Your task to perform on an android device: toggle notification dots Image 0: 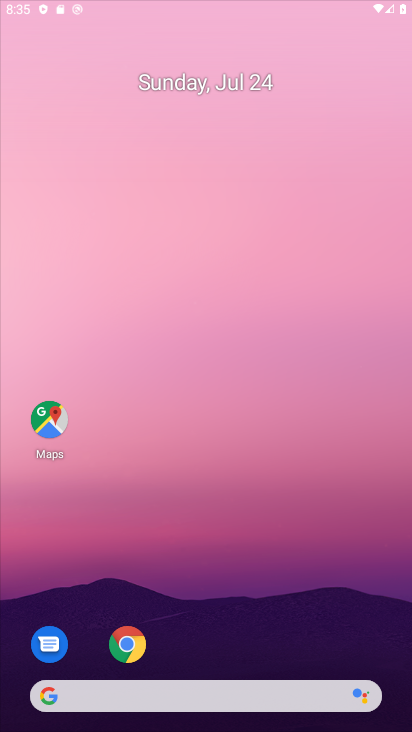
Step 0: click (167, 204)
Your task to perform on an android device: toggle notification dots Image 1: 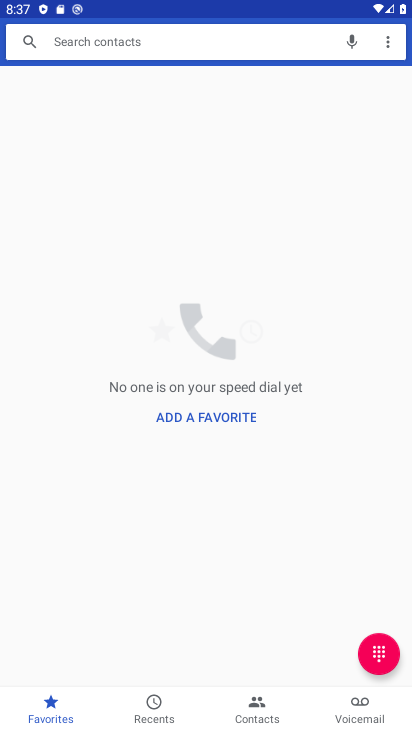
Step 1: press home button
Your task to perform on an android device: toggle notification dots Image 2: 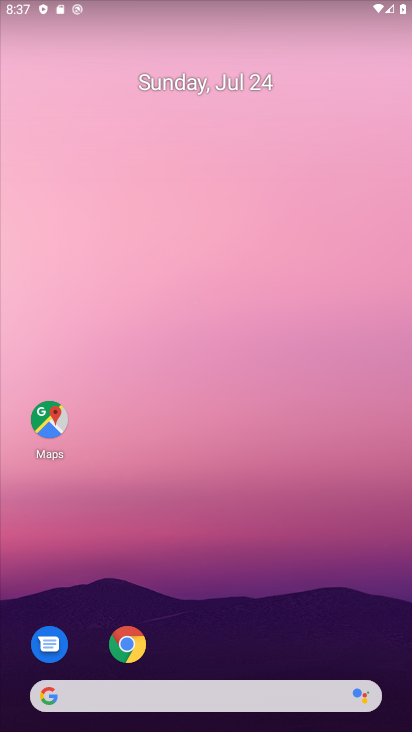
Step 2: drag from (156, 677) to (198, 236)
Your task to perform on an android device: toggle notification dots Image 3: 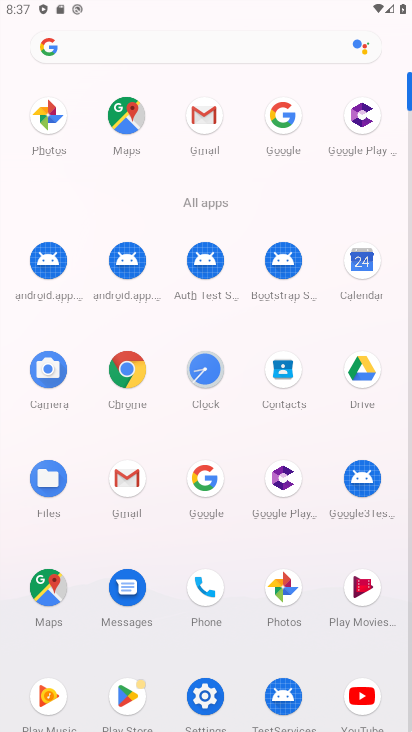
Step 3: click (203, 706)
Your task to perform on an android device: toggle notification dots Image 4: 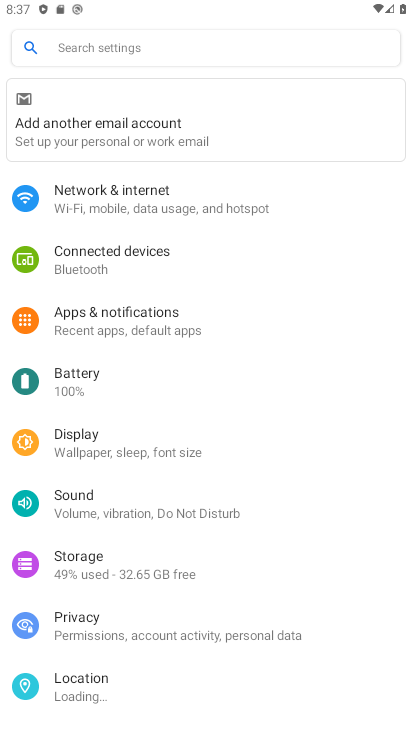
Step 4: click (125, 325)
Your task to perform on an android device: toggle notification dots Image 5: 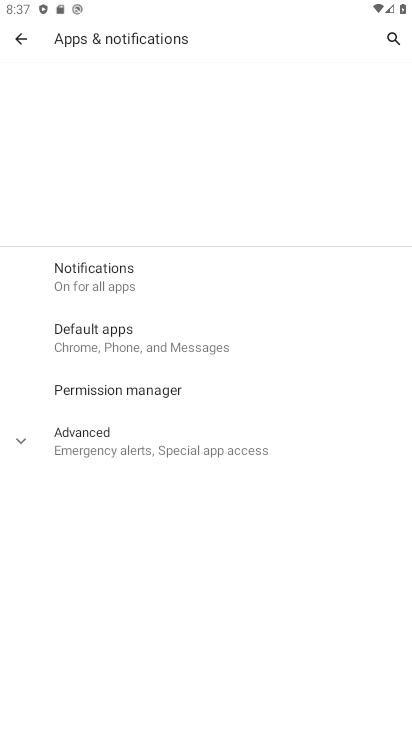
Step 5: click (104, 270)
Your task to perform on an android device: toggle notification dots Image 6: 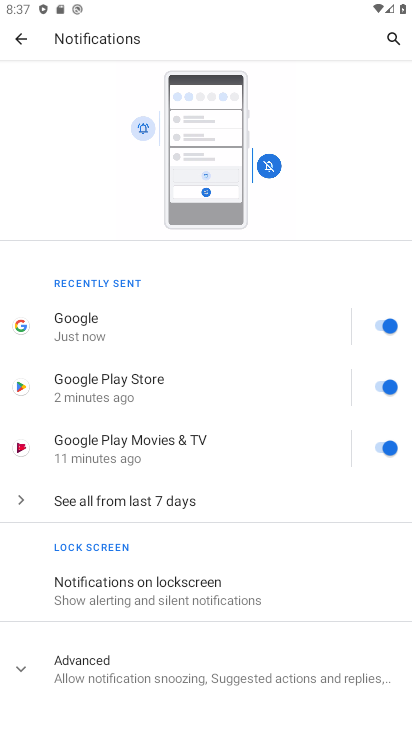
Step 6: drag from (167, 700) to (175, 395)
Your task to perform on an android device: toggle notification dots Image 7: 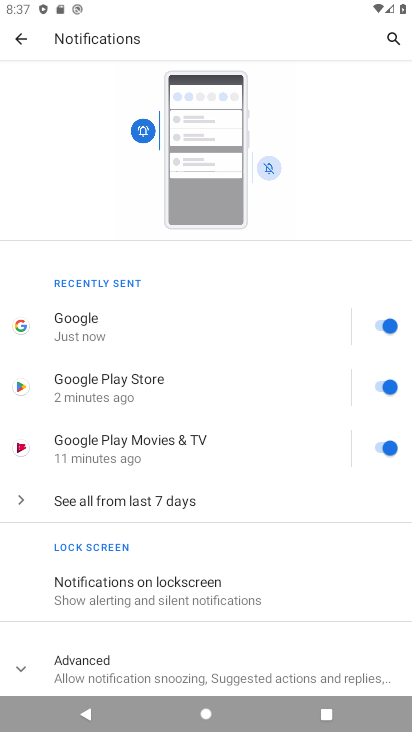
Step 7: click (116, 673)
Your task to perform on an android device: toggle notification dots Image 8: 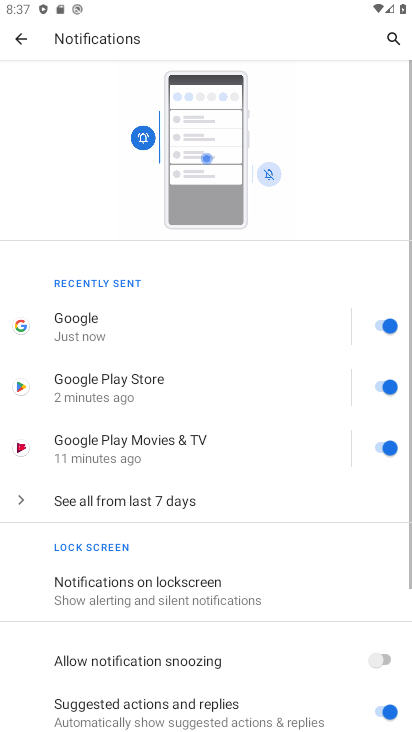
Step 8: drag from (262, 609) to (262, 337)
Your task to perform on an android device: toggle notification dots Image 9: 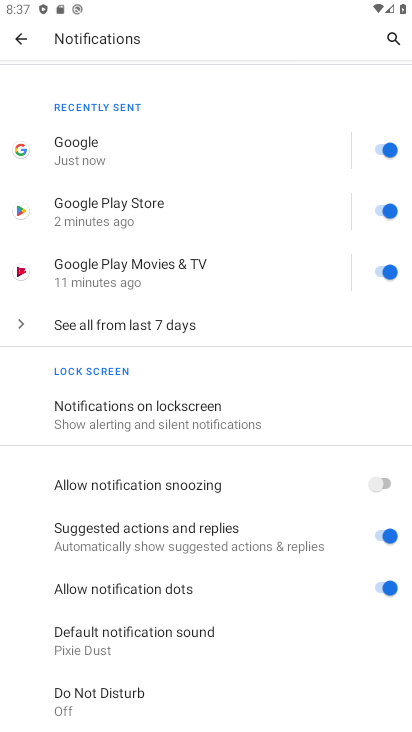
Step 9: click (382, 586)
Your task to perform on an android device: toggle notification dots Image 10: 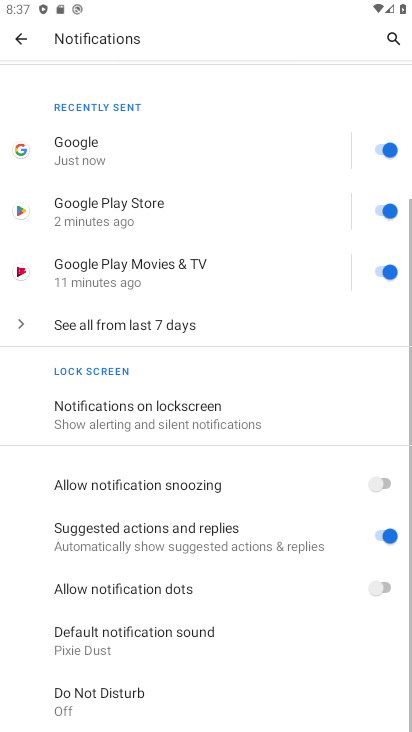
Step 10: task complete